Your task to perform on an android device: Go to Google Image 0: 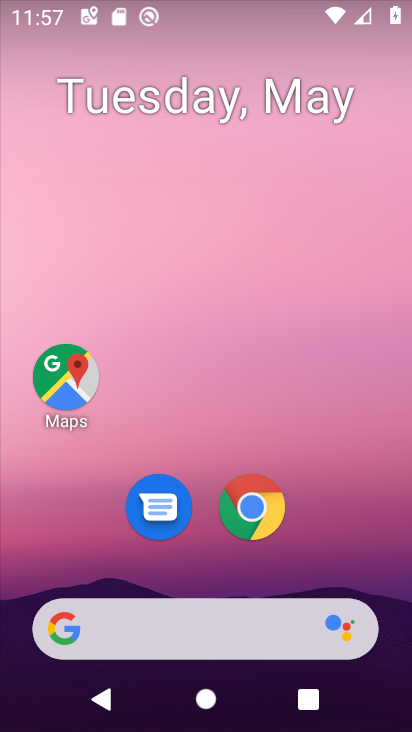
Step 0: drag from (242, 681) to (192, 128)
Your task to perform on an android device: Go to Google Image 1: 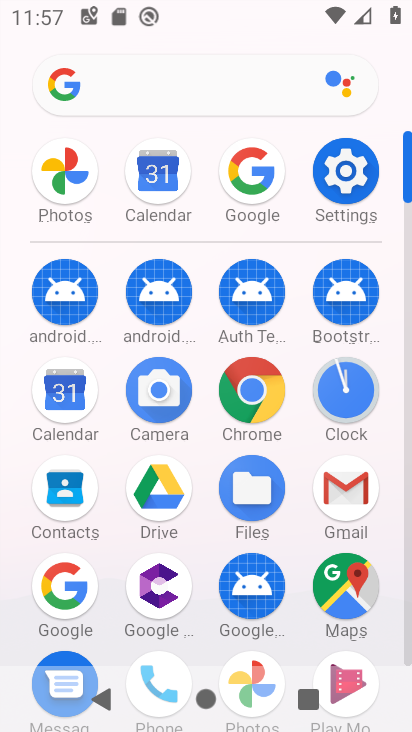
Step 1: drag from (253, 652) to (251, 234)
Your task to perform on an android device: Go to Google Image 2: 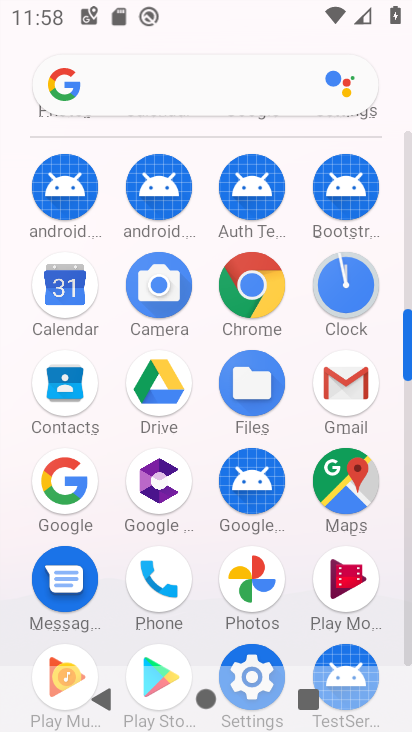
Step 2: click (62, 505)
Your task to perform on an android device: Go to Google Image 3: 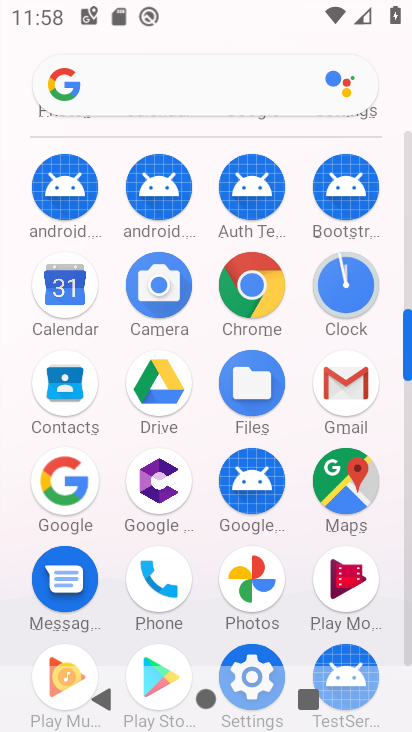
Step 3: click (62, 500)
Your task to perform on an android device: Go to Google Image 4: 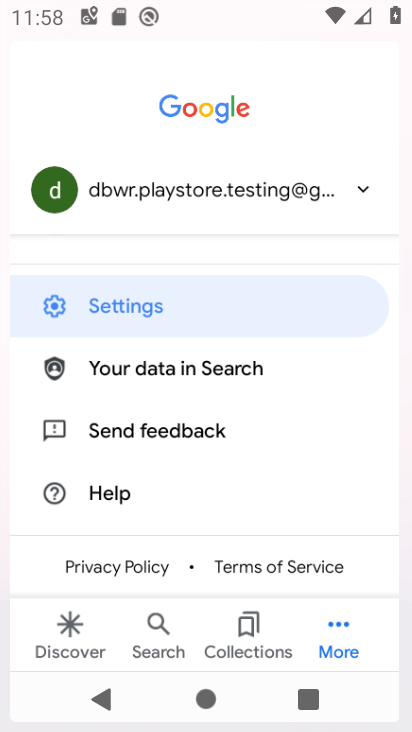
Step 4: click (61, 498)
Your task to perform on an android device: Go to Google Image 5: 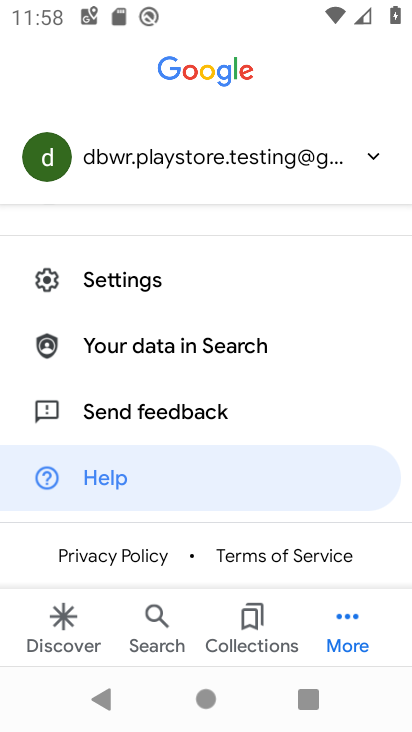
Step 5: task complete